Your task to perform on an android device: Go to Maps Image 0: 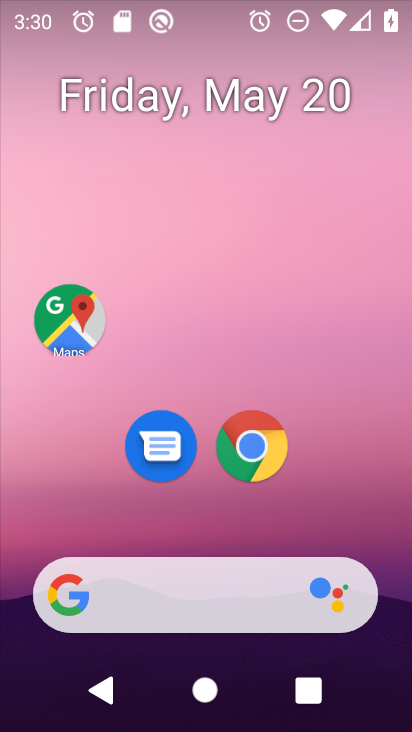
Step 0: click (63, 331)
Your task to perform on an android device: Go to Maps Image 1: 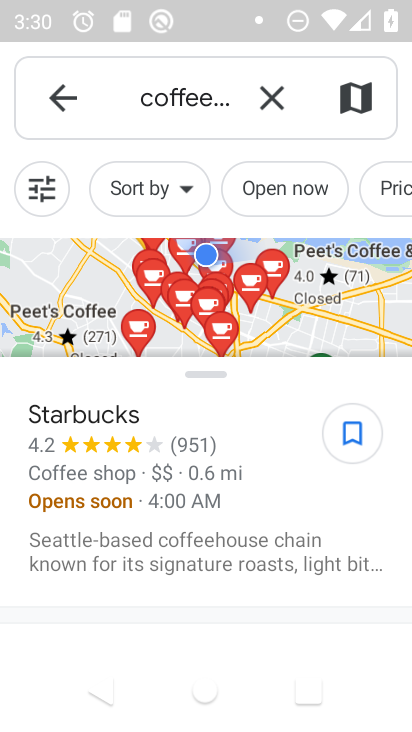
Step 1: click (282, 108)
Your task to perform on an android device: Go to Maps Image 2: 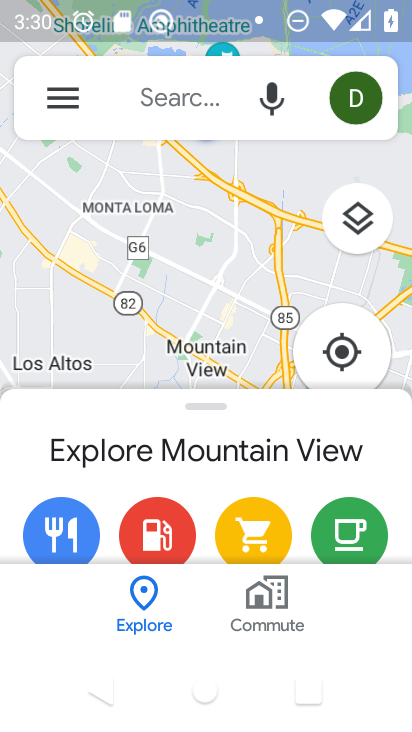
Step 2: task complete